Your task to perform on an android device: Open eBay Image 0: 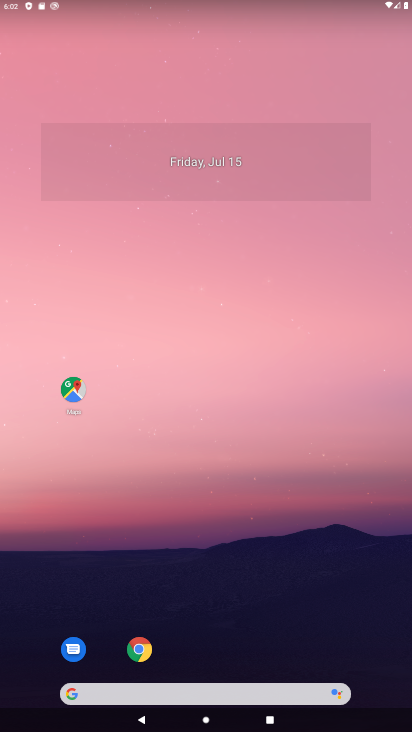
Step 0: click (70, 696)
Your task to perform on an android device: Open eBay Image 1: 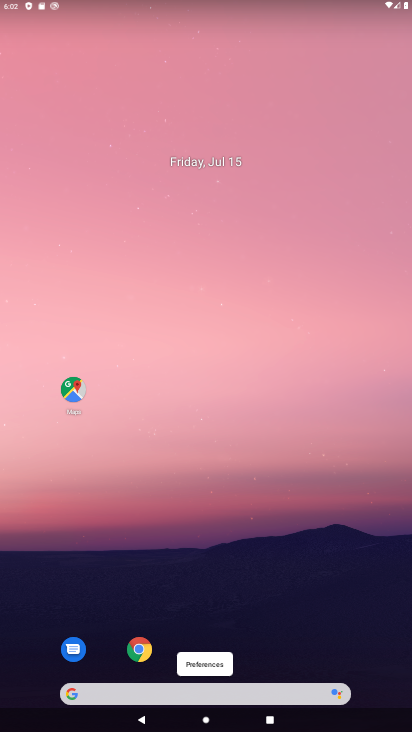
Step 1: click (70, 696)
Your task to perform on an android device: Open eBay Image 2: 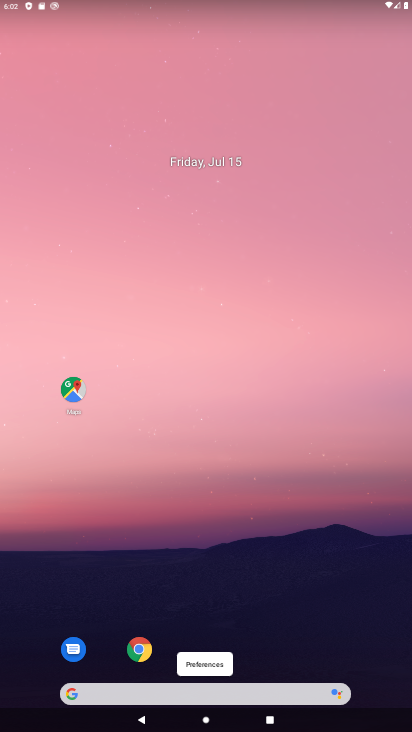
Step 2: click (70, 696)
Your task to perform on an android device: Open eBay Image 3: 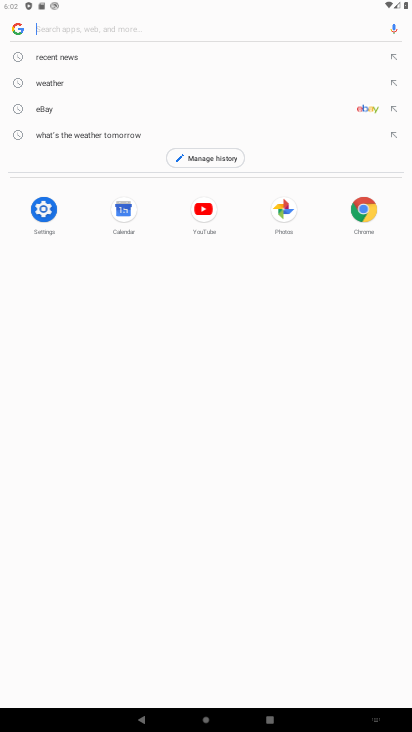
Step 3: click (43, 109)
Your task to perform on an android device: Open eBay Image 4: 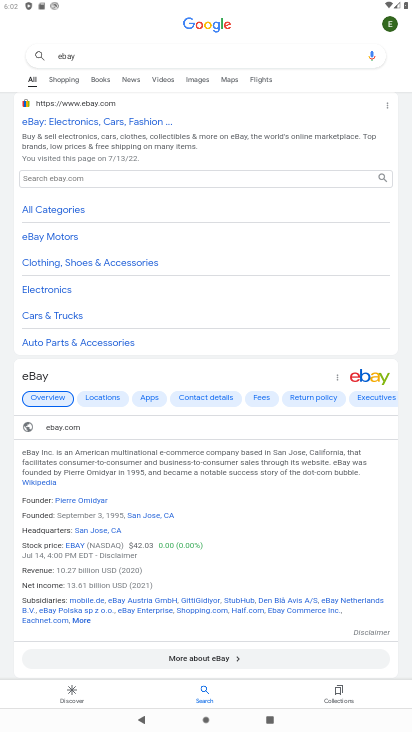
Step 4: click (77, 119)
Your task to perform on an android device: Open eBay Image 5: 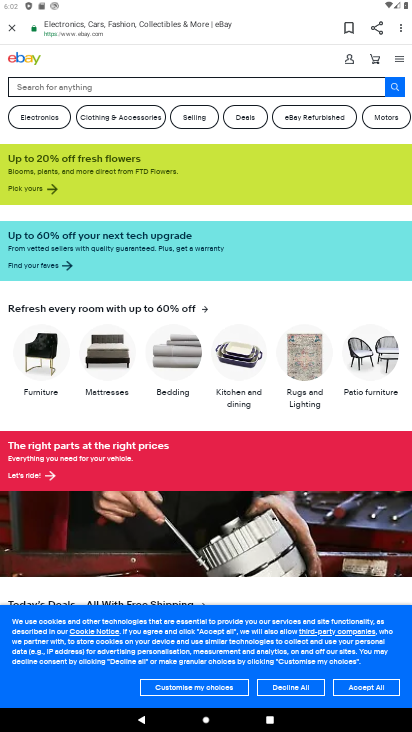
Step 5: task complete